Your task to perform on an android device: Go to Maps Image 0: 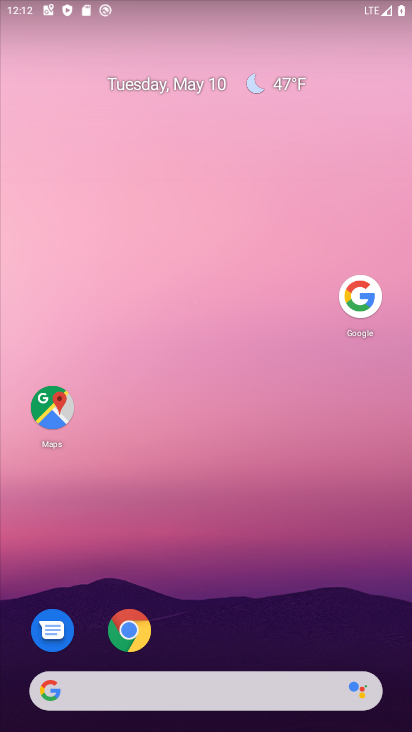
Step 0: press home button
Your task to perform on an android device: Go to Maps Image 1: 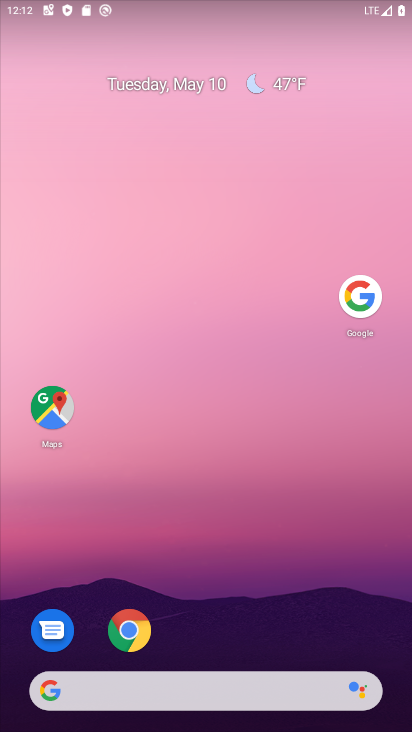
Step 1: click (51, 411)
Your task to perform on an android device: Go to Maps Image 2: 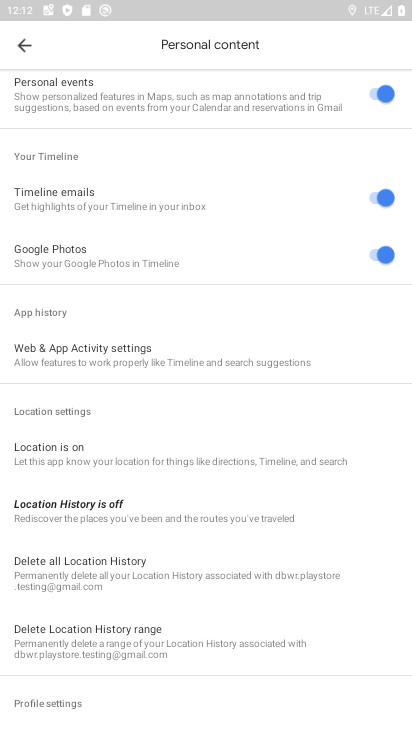
Step 2: click (24, 31)
Your task to perform on an android device: Go to Maps Image 3: 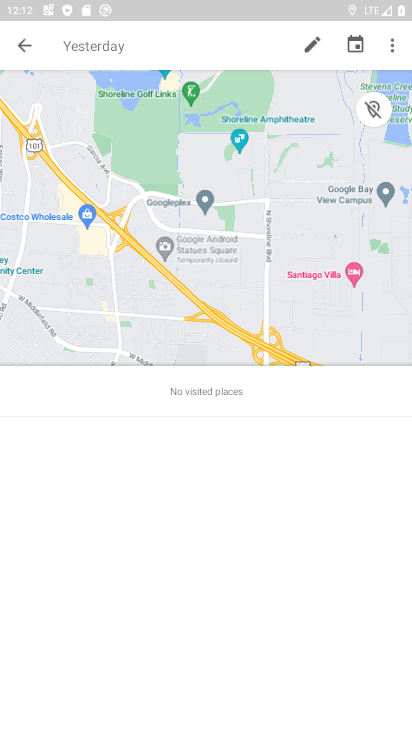
Step 3: click (25, 34)
Your task to perform on an android device: Go to Maps Image 4: 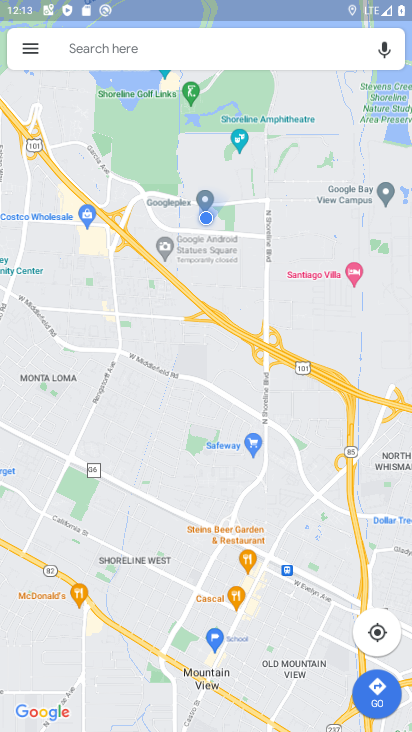
Step 4: task complete